Your task to perform on an android device: Search for sushi restaurants on Maps Image 0: 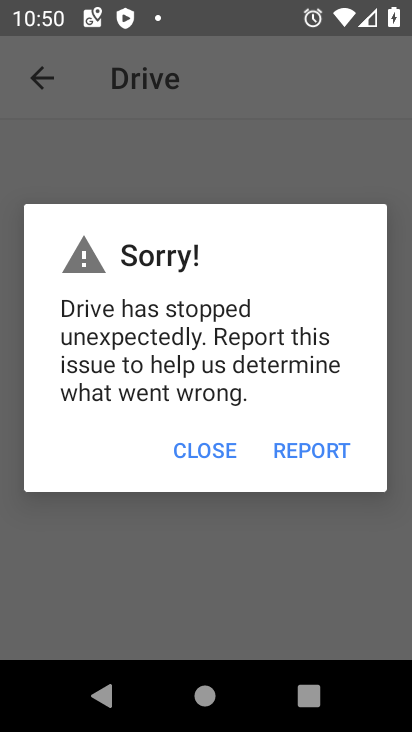
Step 0: press home button
Your task to perform on an android device: Search for sushi restaurants on Maps Image 1: 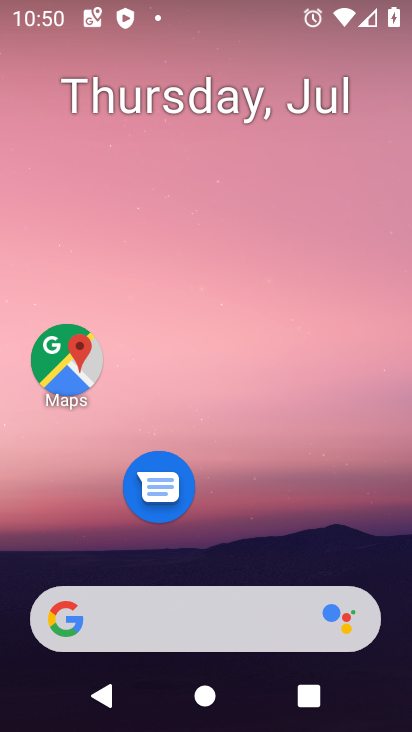
Step 1: drag from (243, 603) to (310, 45)
Your task to perform on an android device: Search for sushi restaurants on Maps Image 2: 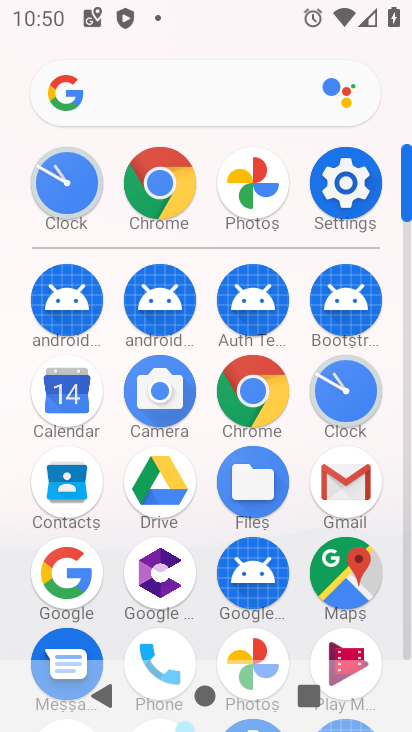
Step 2: drag from (175, 428) to (231, 158)
Your task to perform on an android device: Search for sushi restaurants on Maps Image 3: 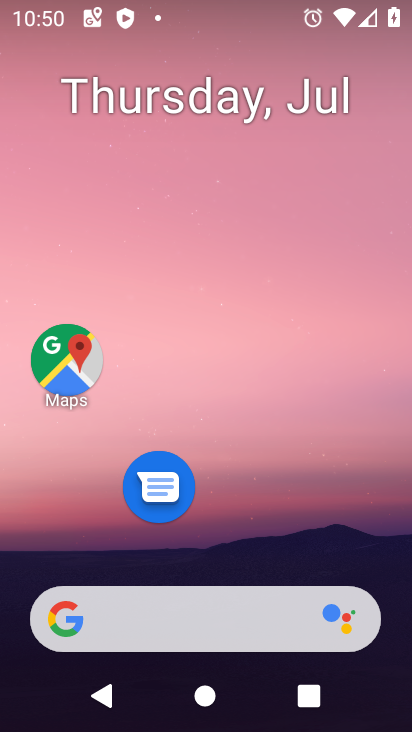
Step 3: drag from (241, 547) to (361, 105)
Your task to perform on an android device: Search for sushi restaurants on Maps Image 4: 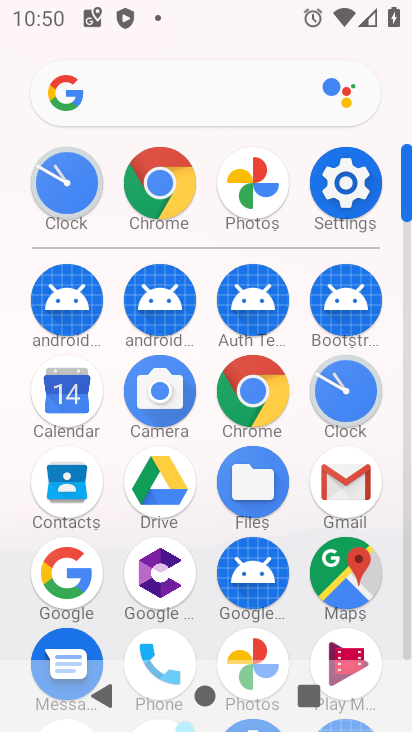
Step 4: click (364, 570)
Your task to perform on an android device: Search for sushi restaurants on Maps Image 5: 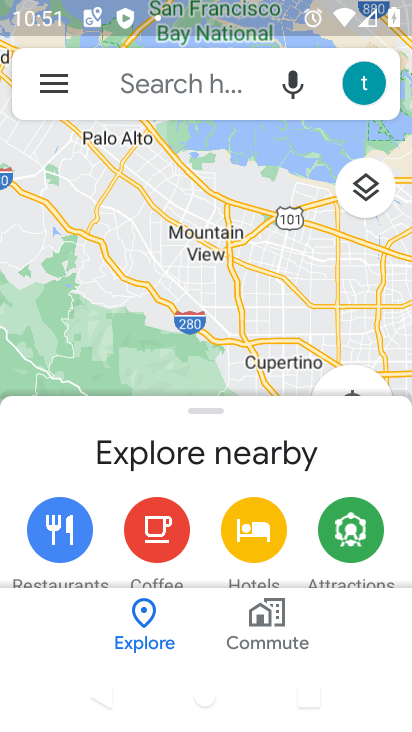
Step 5: click (212, 107)
Your task to perform on an android device: Search for sushi restaurants on Maps Image 6: 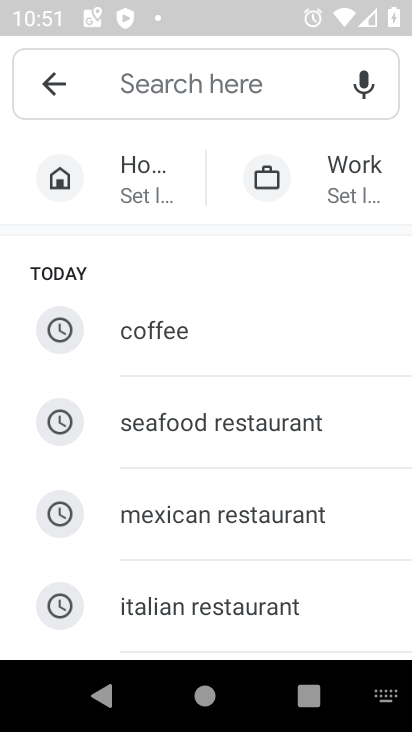
Step 6: type "sushi"
Your task to perform on an android device: Search for sushi restaurants on Maps Image 7: 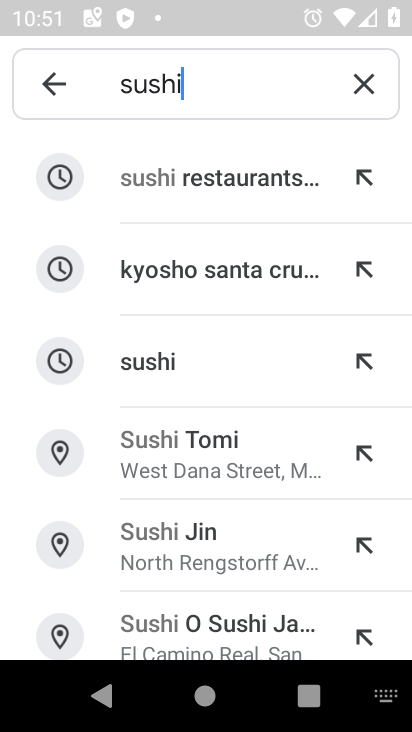
Step 7: click (247, 198)
Your task to perform on an android device: Search for sushi restaurants on Maps Image 8: 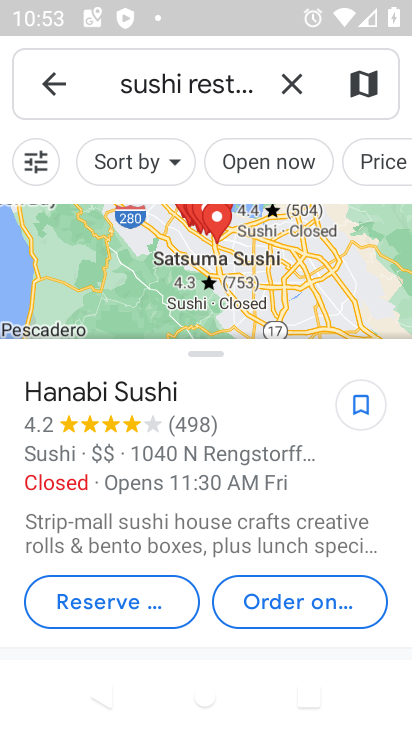
Step 8: task complete